Your task to perform on an android device: toggle show notifications on the lock screen Image 0: 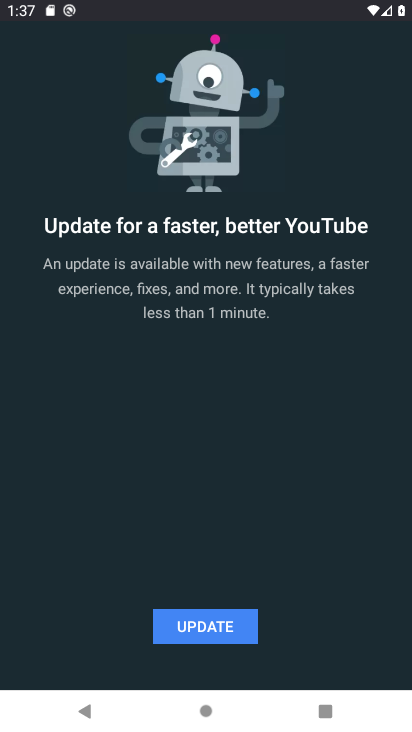
Step 0: press home button
Your task to perform on an android device: toggle show notifications on the lock screen Image 1: 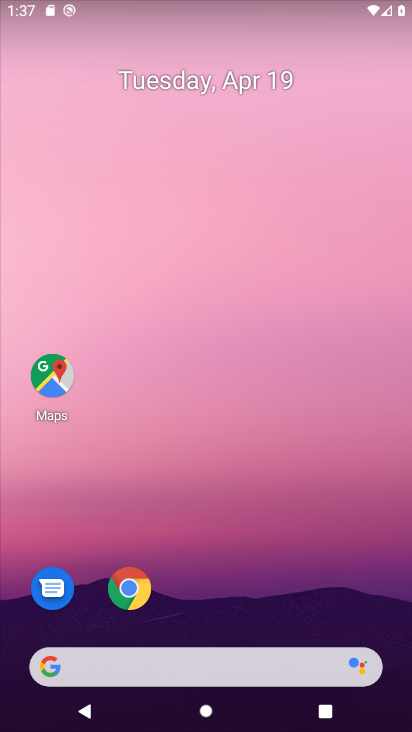
Step 1: drag from (189, 610) to (240, 11)
Your task to perform on an android device: toggle show notifications on the lock screen Image 2: 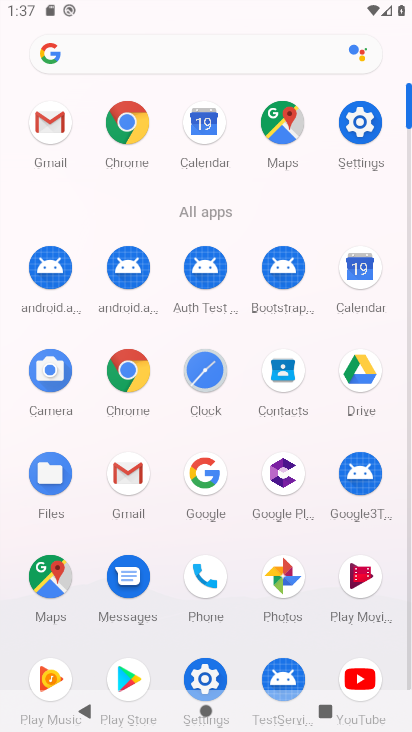
Step 2: click (359, 138)
Your task to perform on an android device: toggle show notifications on the lock screen Image 3: 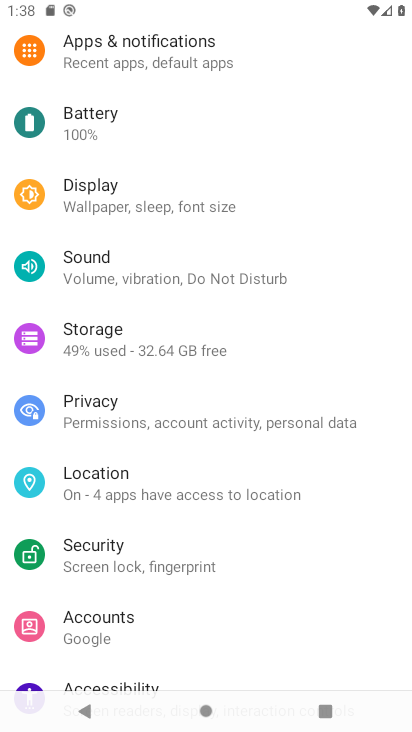
Step 3: click (168, 44)
Your task to perform on an android device: toggle show notifications on the lock screen Image 4: 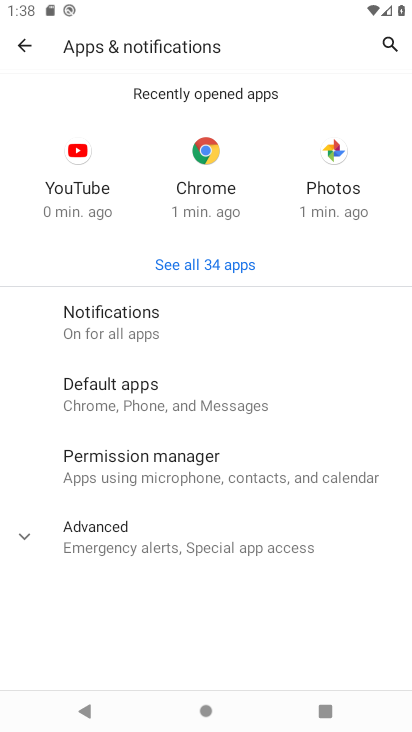
Step 4: click (137, 338)
Your task to perform on an android device: toggle show notifications on the lock screen Image 5: 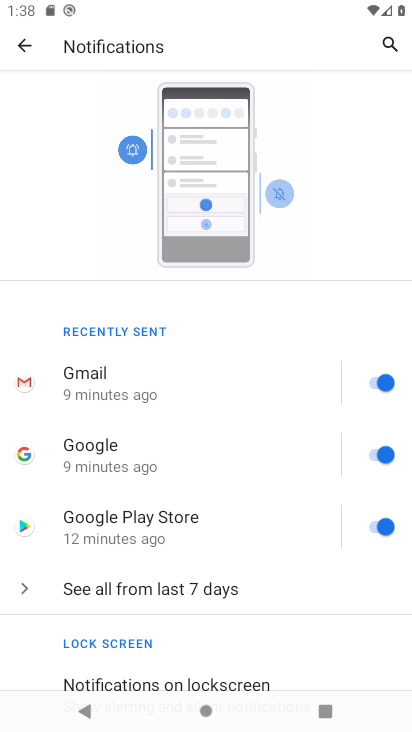
Step 5: drag from (192, 562) to (195, 339)
Your task to perform on an android device: toggle show notifications on the lock screen Image 6: 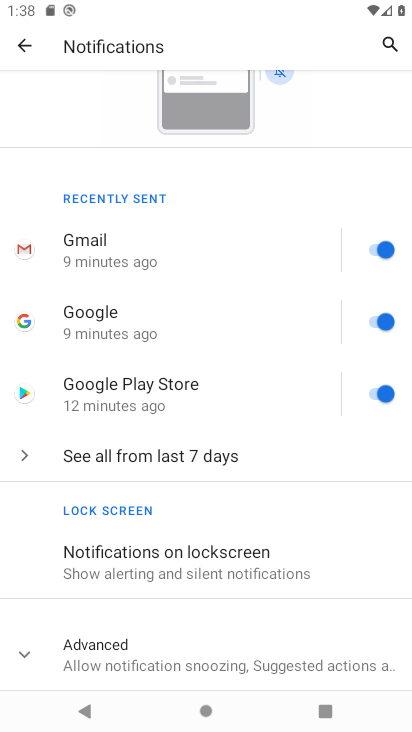
Step 6: click (181, 577)
Your task to perform on an android device: toggle show notifications on the lock screen Image 7: 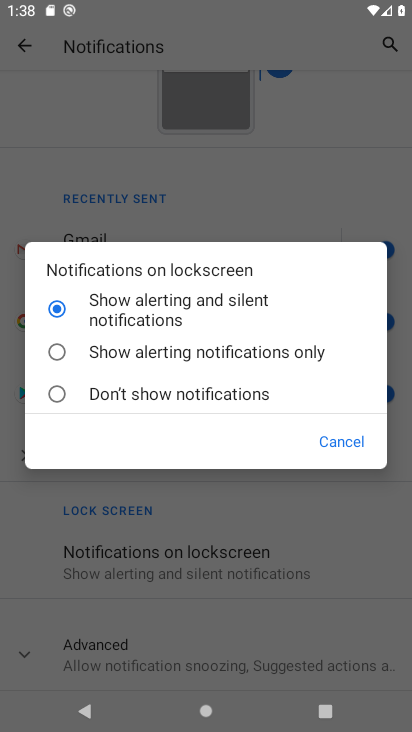
Step 7: click (157, 315)
Your task to perform on an android device: toggle show notifications on the lock screen Image 8: 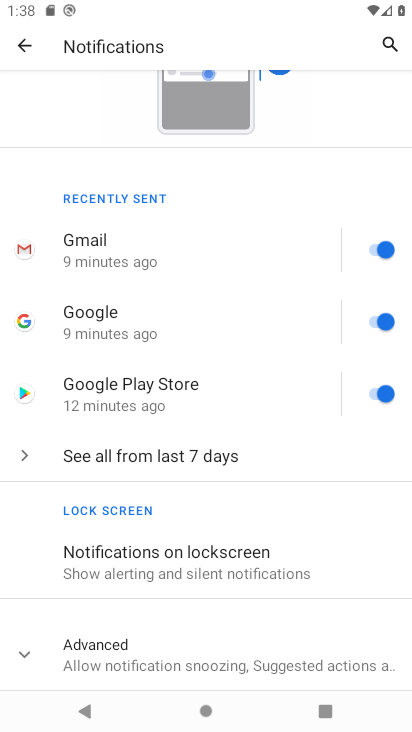
Step 8: task complete